Your task to perform on an android device: open a bookmark in the chrome app Image 0: 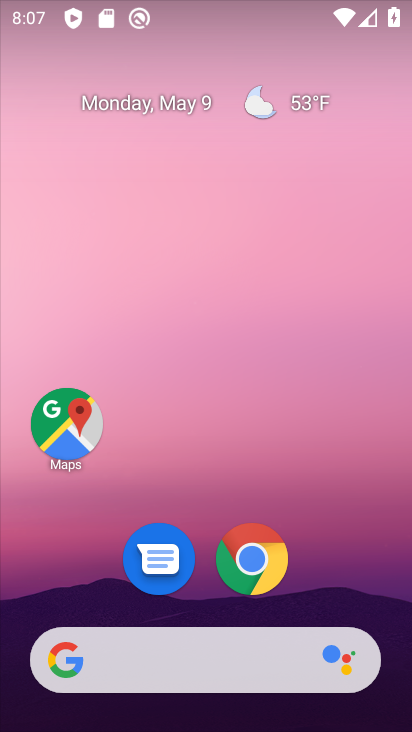
Step 0: drag from (325, 531) to (188, 3)
Your task to perform on an android device: open a bookmark in the chrome app Image 1: 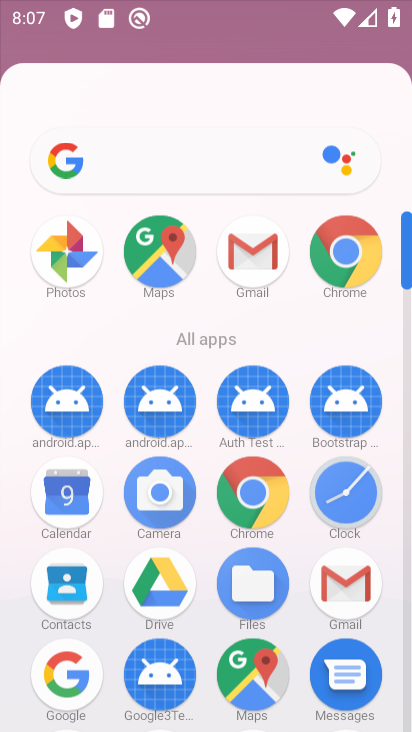
Step 1: drag from (367, 444) to (234, 19)
Your task to perform on an android device: open a bookmark in the chrome app Image 2: 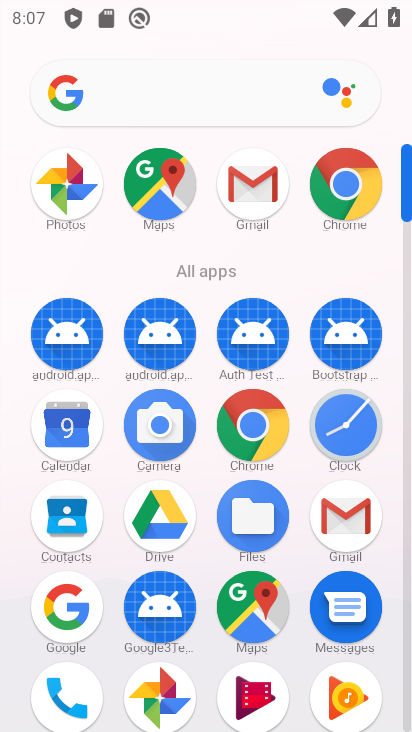
Step 2: click (344, 186)
Your task to perform on an android device: open a bookmark in the chrome app Image 3: 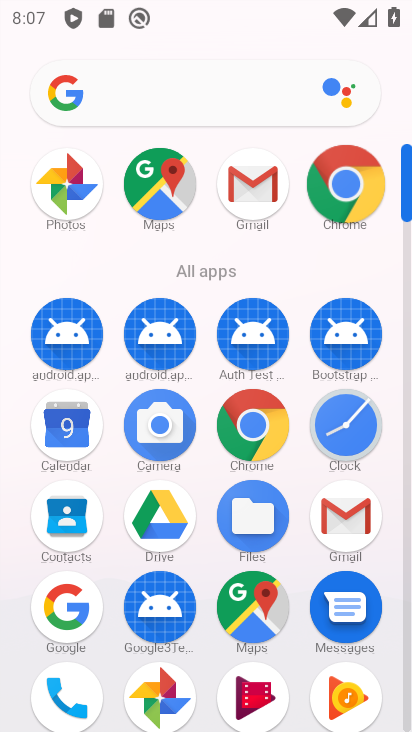
Step 3: click (346, 184)
Your task to perform on an android device: open a bookmark in the chrome app Image 4: 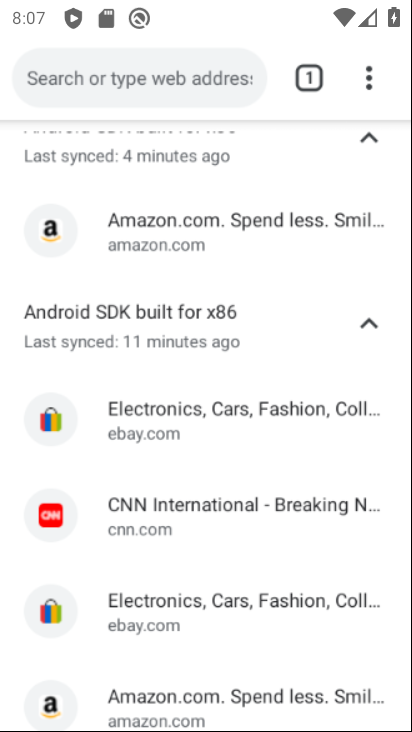
Step 4: click (347, 185)
Your task to perform on an android device: open a bookmark in the chrome app Image 5: 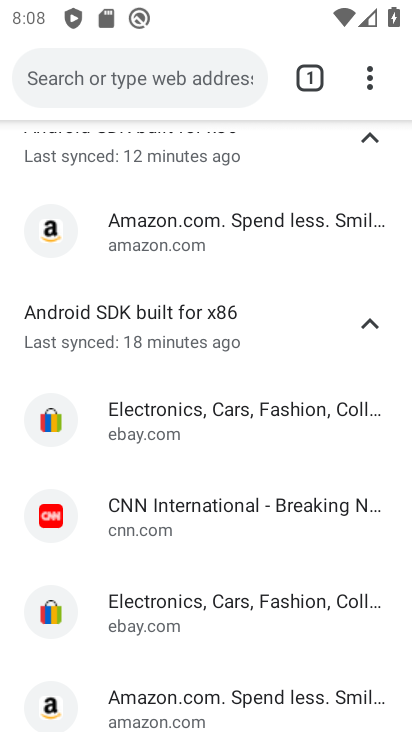
Step 5: drag from (371, 73) to (89, 284)
Your task to perform on an android device: open a bookmark in the chrome app Image 6: 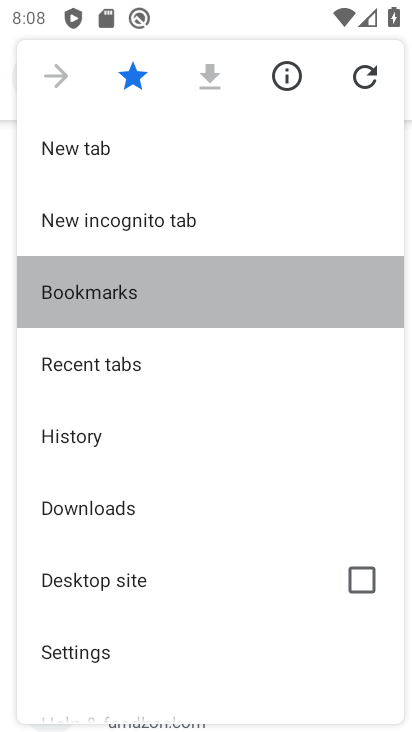
Step 6: click (90, 285)
Your task to perform on an android device: open a bookmark in the chrome app Image 7: 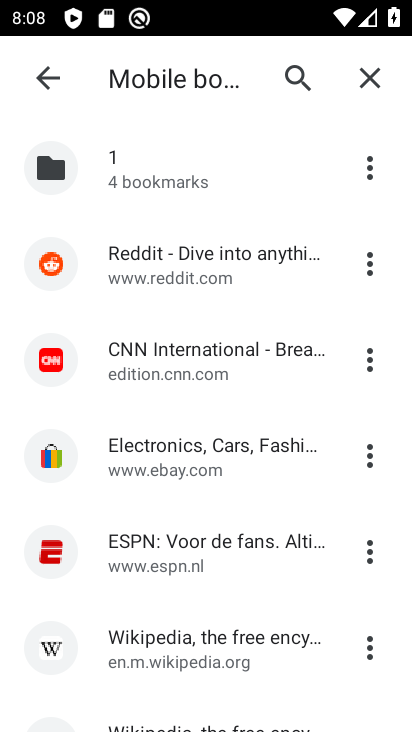
Step 7: task complete